Your task to perform on an android device: Open display settings Image 0: 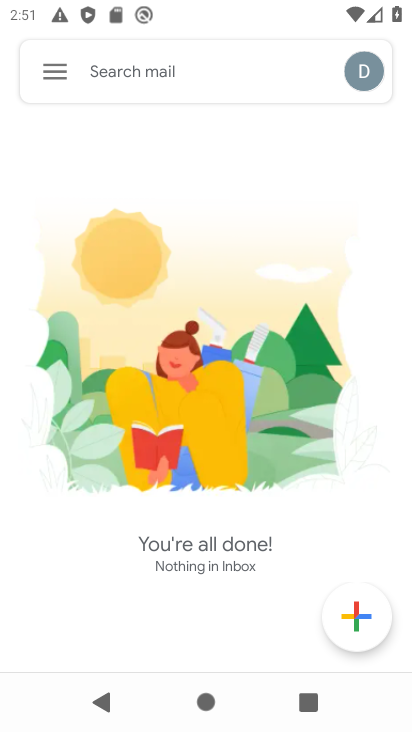
Step 0: press home button
Your task to perform on an android device: Open display settings Image 1: 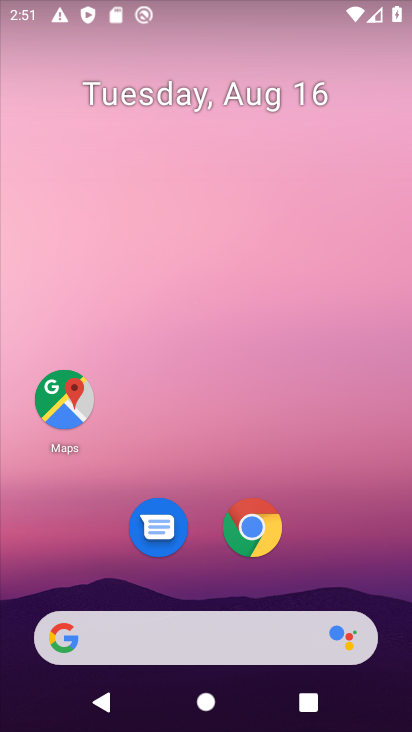
Step 1: drag from (200, 586) to (260, 100)
Your task to perform on an android device: Open display settings Image 2: 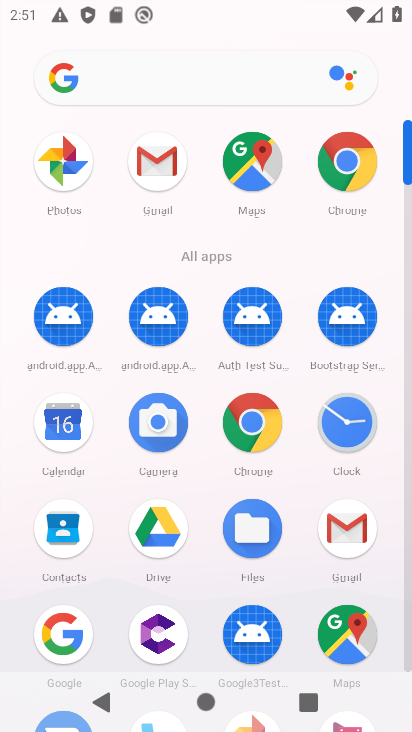
Step 2: drag from (200, 605) to (231, 93)
Your task to perform on an android device: Open display settings Image 3: 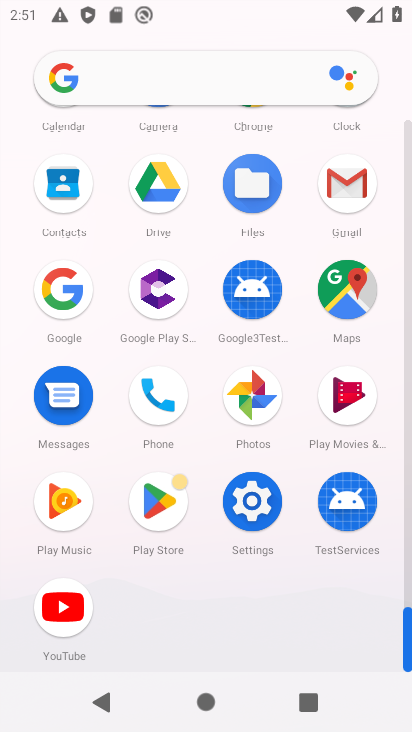
Step 3: click (250, 495)
Your task to perform on an android device: Open display settings Image 4: 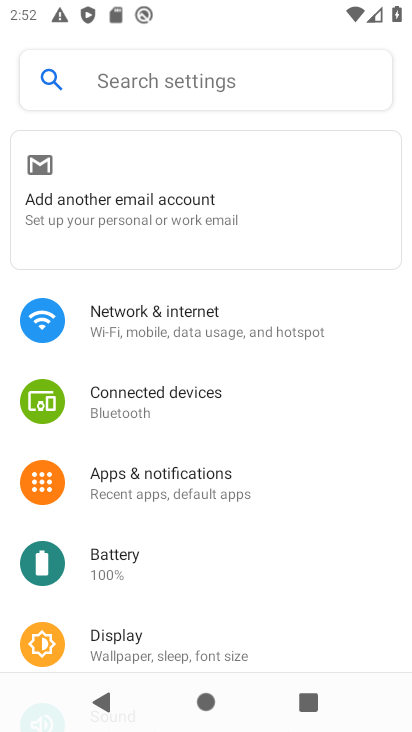
Step 4: click (159, 646)
Your task to perform on an android device: Open display settings Image 5: 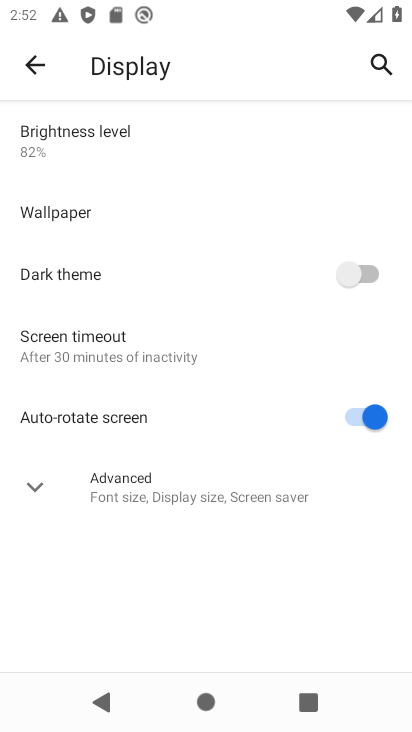
Step 5: click (30, 483)
Your task to perform on an android device: Open display settings Image 6: 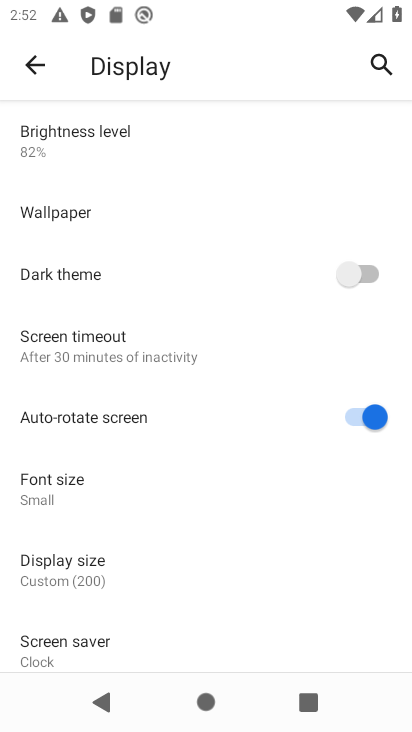
Step 6: task complete